Your task to perform on an android device: choose inbox layout in the gmail app Image 0: 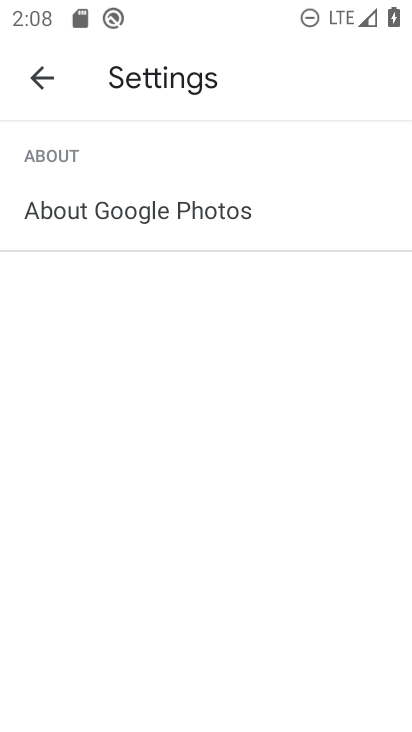
Step 0: press home button
Your task to perform on an android device: choose inbox layout in the gmail app Image 1: 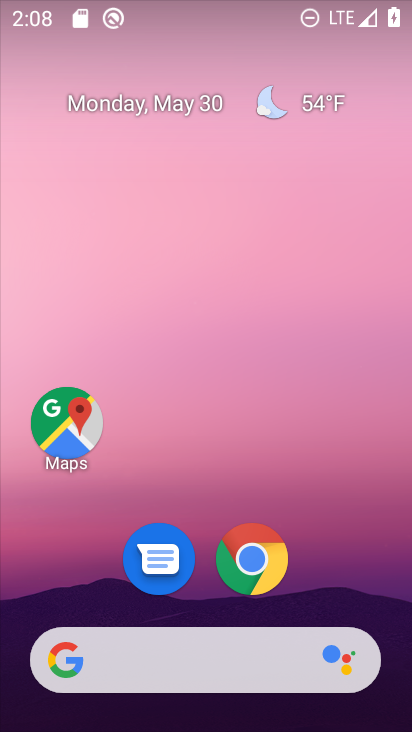
Step 1: drag from (341, 571) to (357, 42)
Your task to perform on an android device: choose inbox layout in the gmail app Image 2: 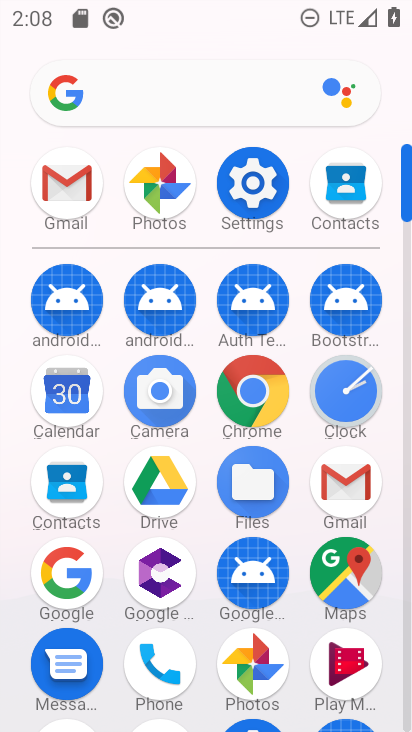
Step 2: click (351, 490)
Your task to perform on an android device: choose inbox layout in the gmail app Image 3: 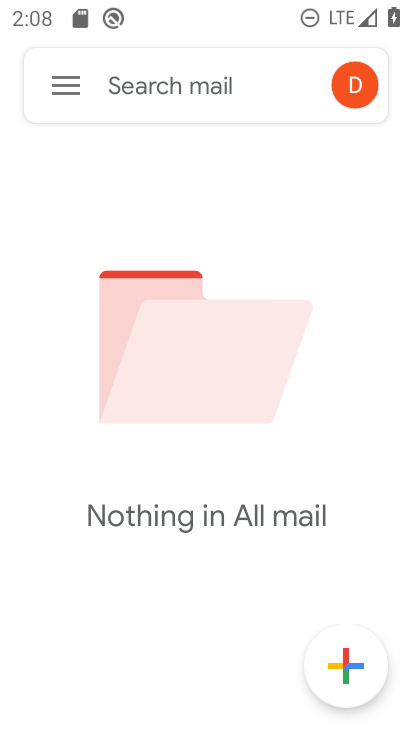
Step 3: click (76, 93)
Your task to perform on an android device: choose inbox layout in the gmail app Image 4: 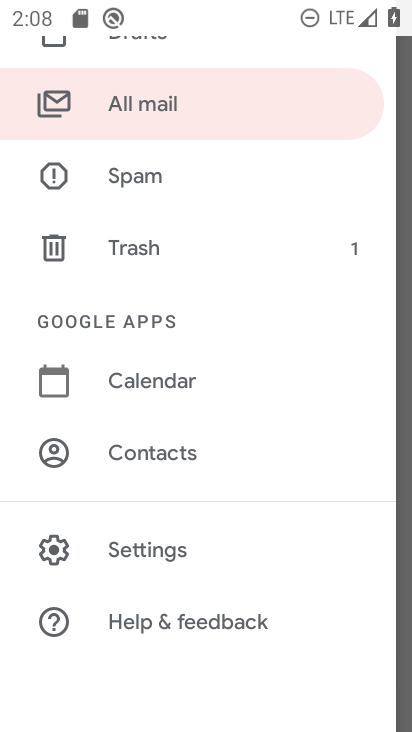
Step 4: click (157, 548)
Your task to perform on an android device: choose inbox layout in the gmail app Image 5: 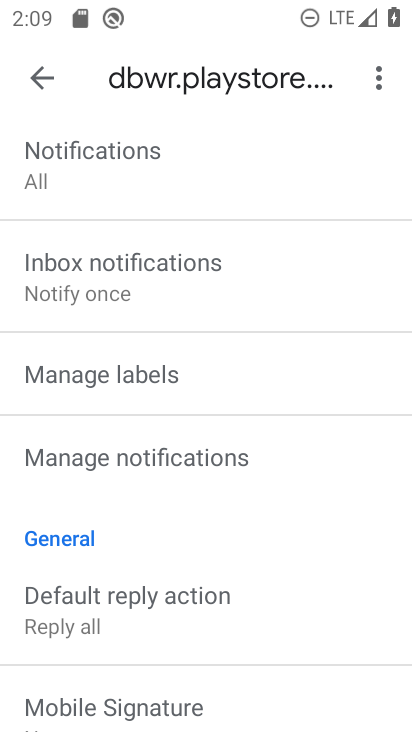
Step 5: drag from (182, 265) to (182, 580)
Your task to perform on an android device: choose inbox layout in the gmail app Image 6: 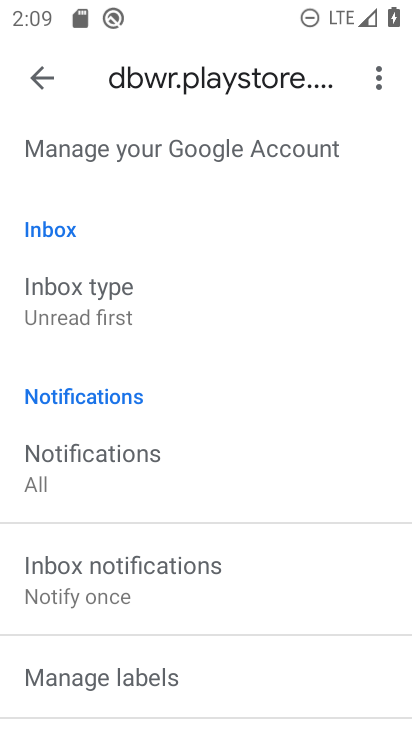
Step 6: drag from (138, 255) to (148, 448)
Your task to perform on an android device: choose inbox layout in the gmail app Image 7: 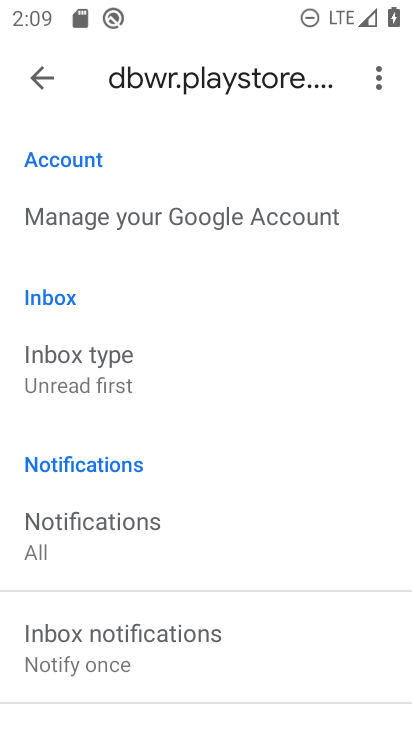
Step 7: click (138, 361)
Your task to perform on an android device: choose inbox layout in the gmail app Image 8: 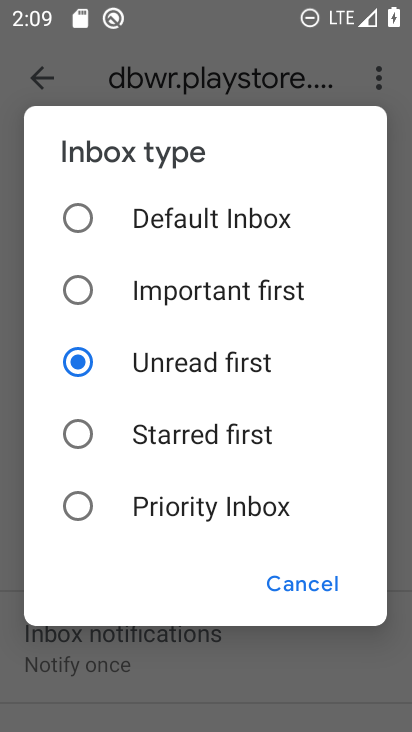
Step 8: click (197, 222)
Your task to perform on an android device: choose inbox layout in the gmail app Image 9: 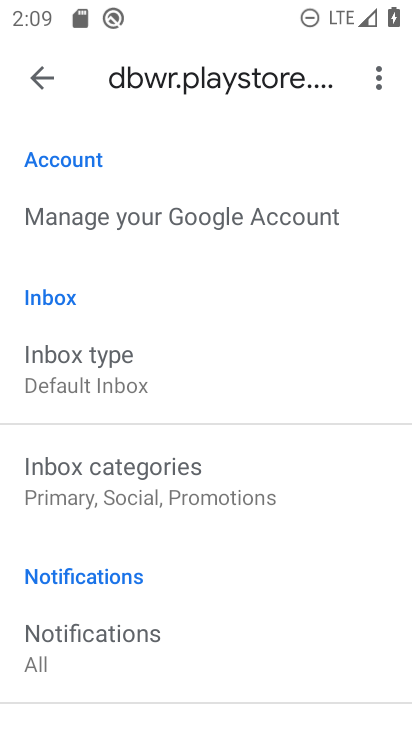
Step 9: task complete